Your task to perform on an android device: What's the weather today? Image 0: 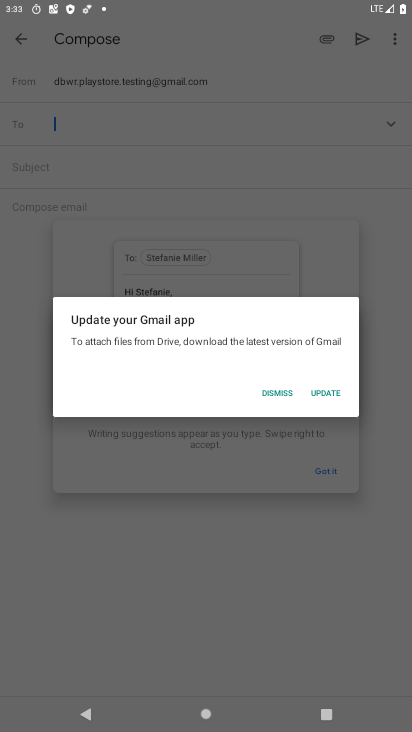
Step 0: press home button
Your task to perform on an android device: What's the weather today? Image 1: 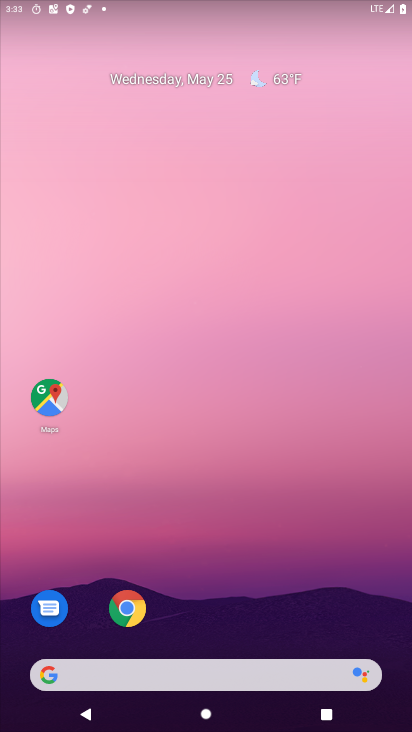
Step 1: click (280, 75)
Your task to perform on an android device: What's the weather today? Image 2: 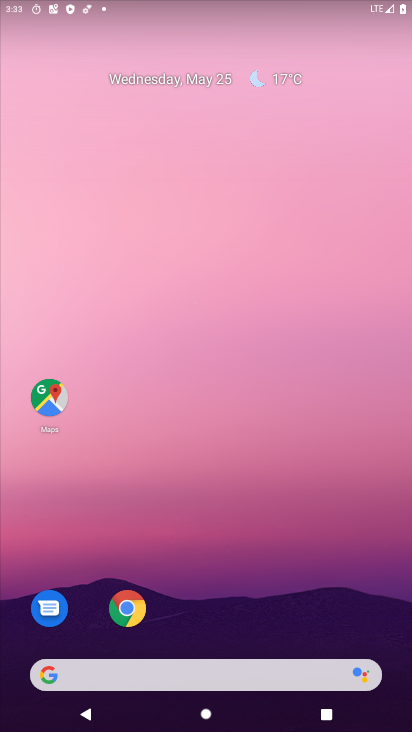
Step 2: click (280, 85)
Your task to perform on an android device: What's the weather today? Image 3: 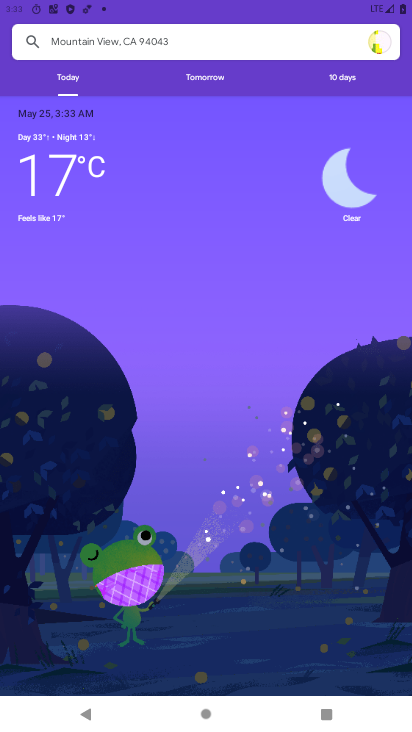
Step 3: task complete